Your task to perform on an android device: find snoozed emails in the gmail app Image 0: 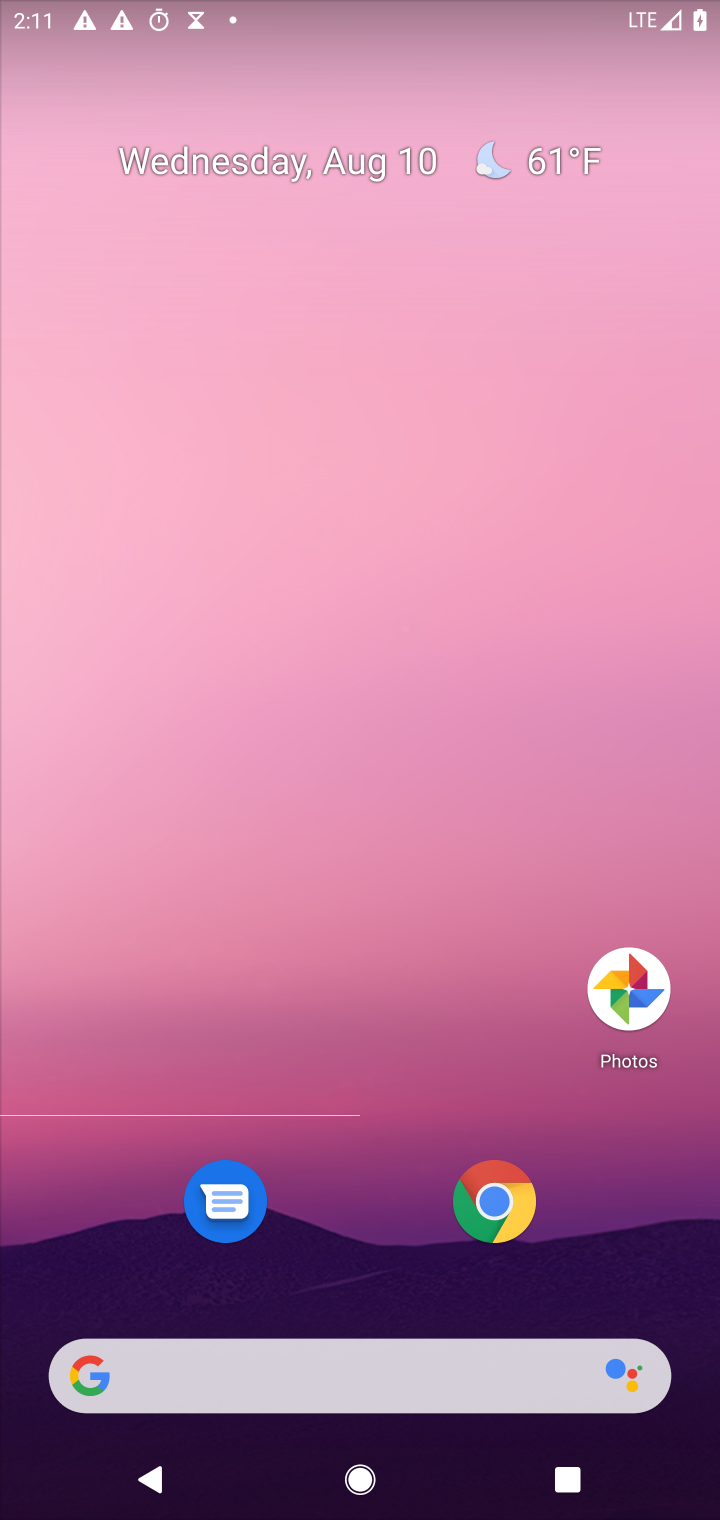
Step 0: drag from (345, 1035) to (382, 24)
Your task to perform on an android device: find snoozed emails in the gmail app Image 1: 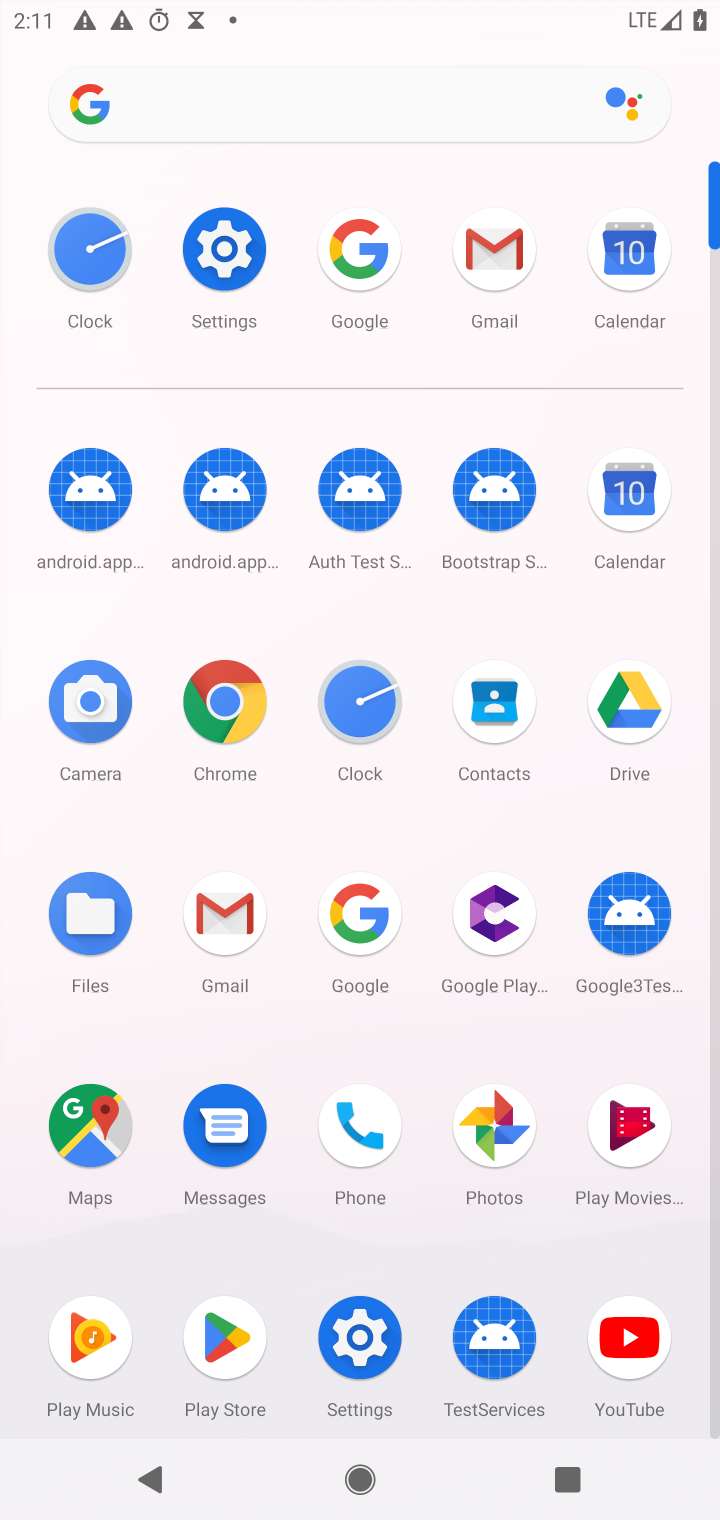
Step 1: click (488, 277)
Your task to perform on an android device: find snoozed emails in the gmail app Image 2: 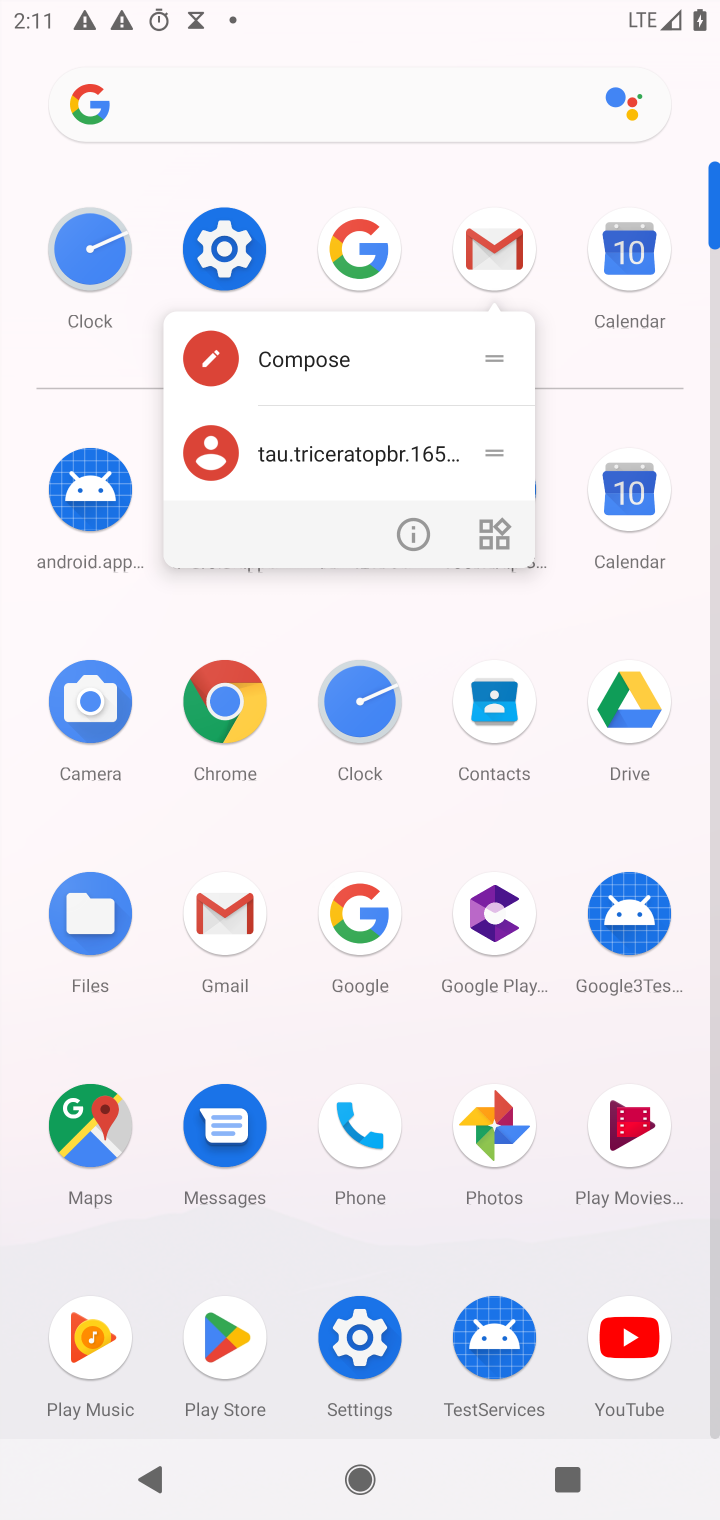
Step 2: click (488, 277)
Your task to perform on an android device: find snoozed emails in the gmail app Image 3: 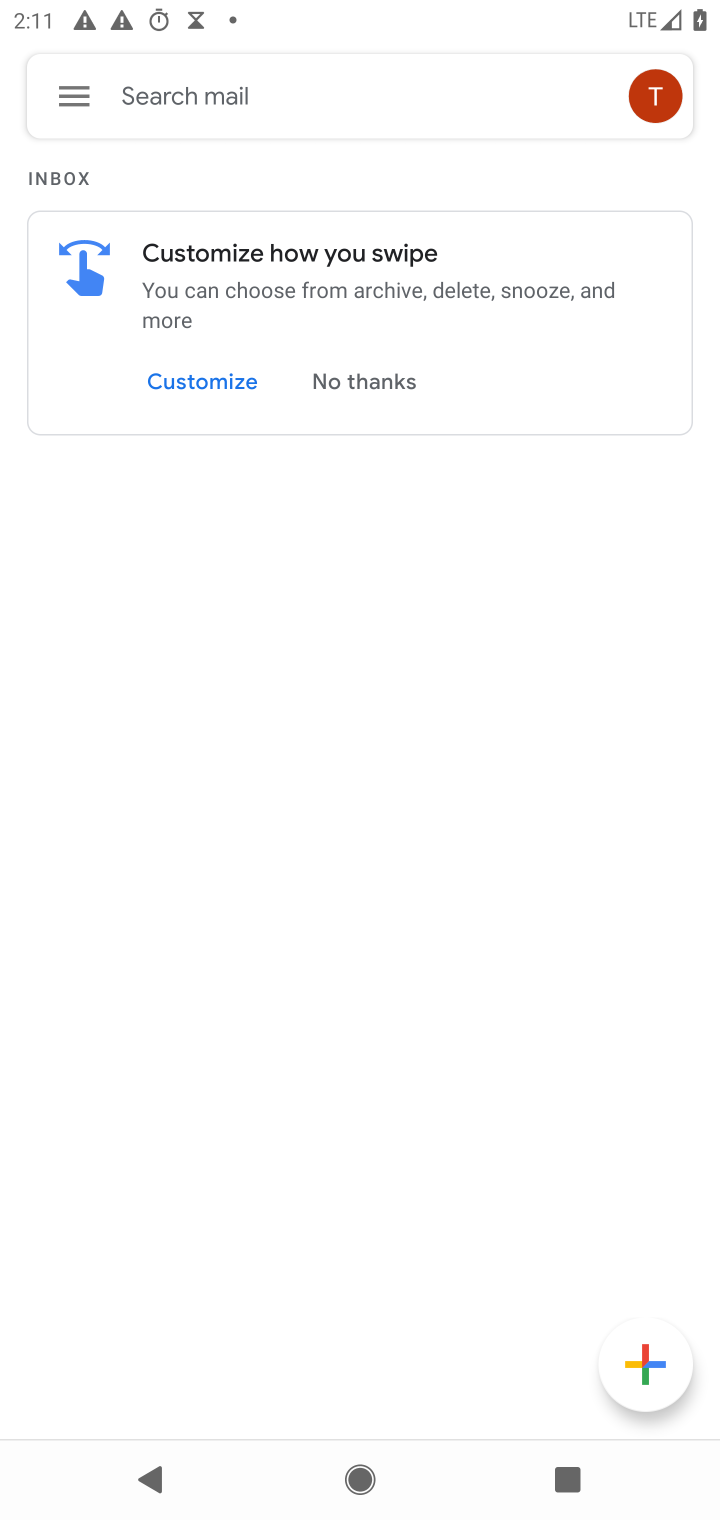
Step 3: click (60, 112)
Your task to perform on an android device: find snoozed emails in the gmail app Image 4: 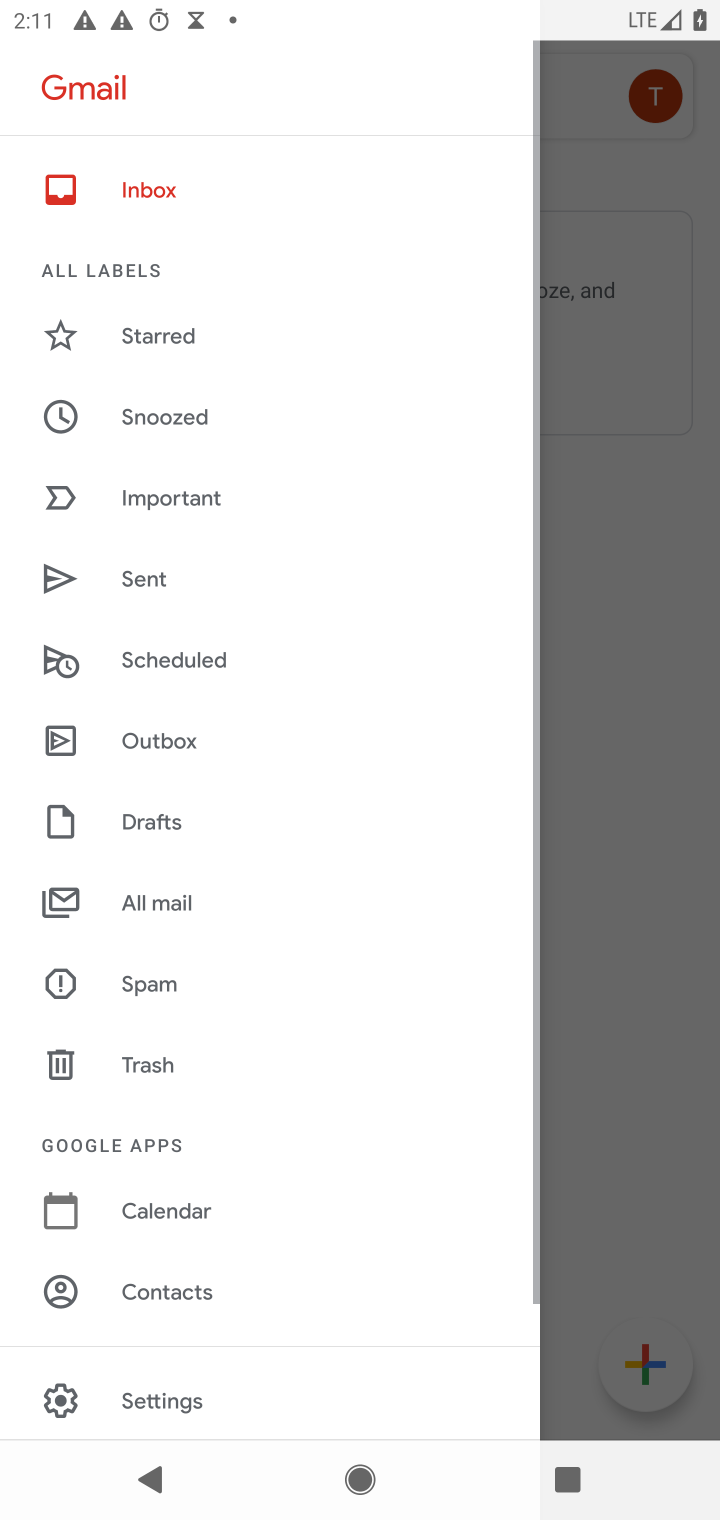
Step 4: drag from (142, 344) to (144, 417)
Your task to perform on an android device: find snoozed emails in the gmail app Image 5: 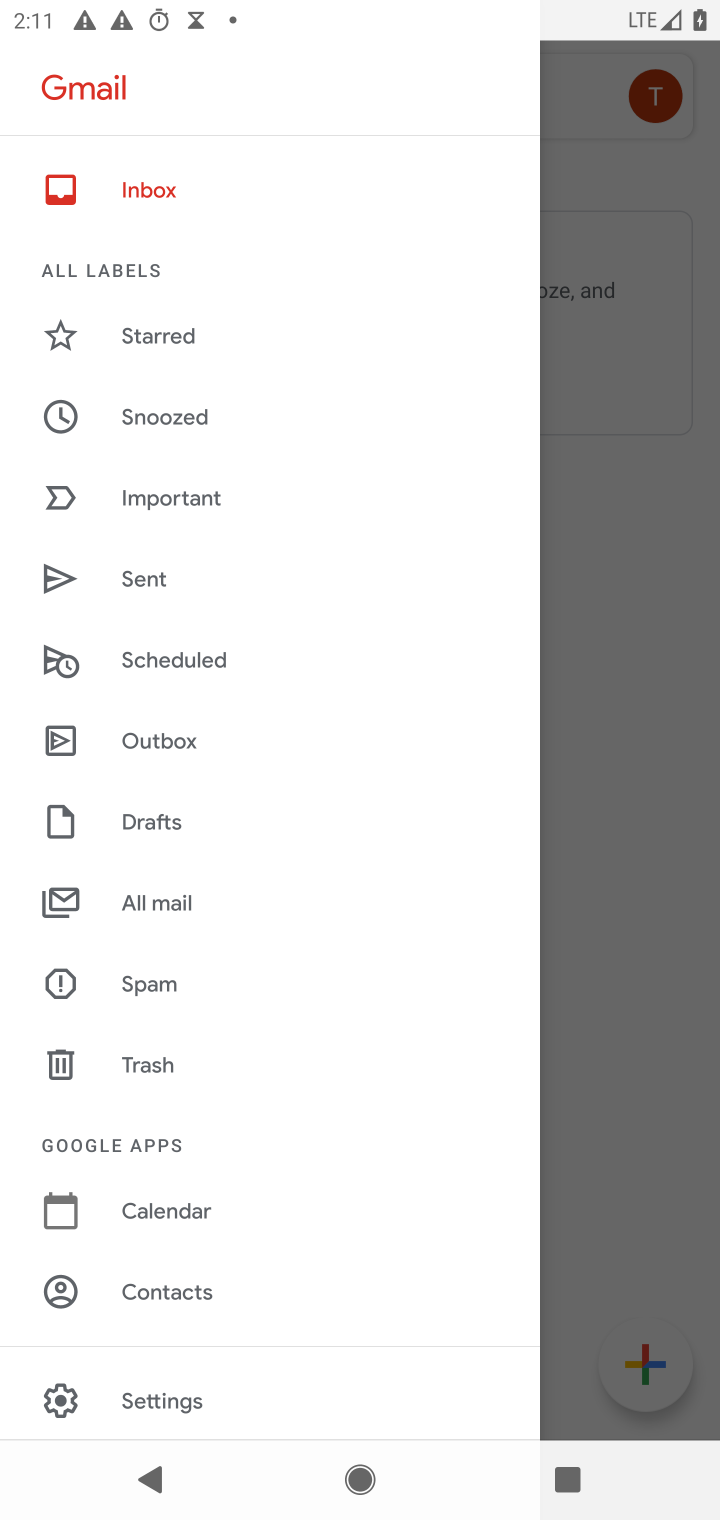
Step 5: click (144, 417)
Your task to perform on an android device: find snoozed emails in the gmail app Image 6: 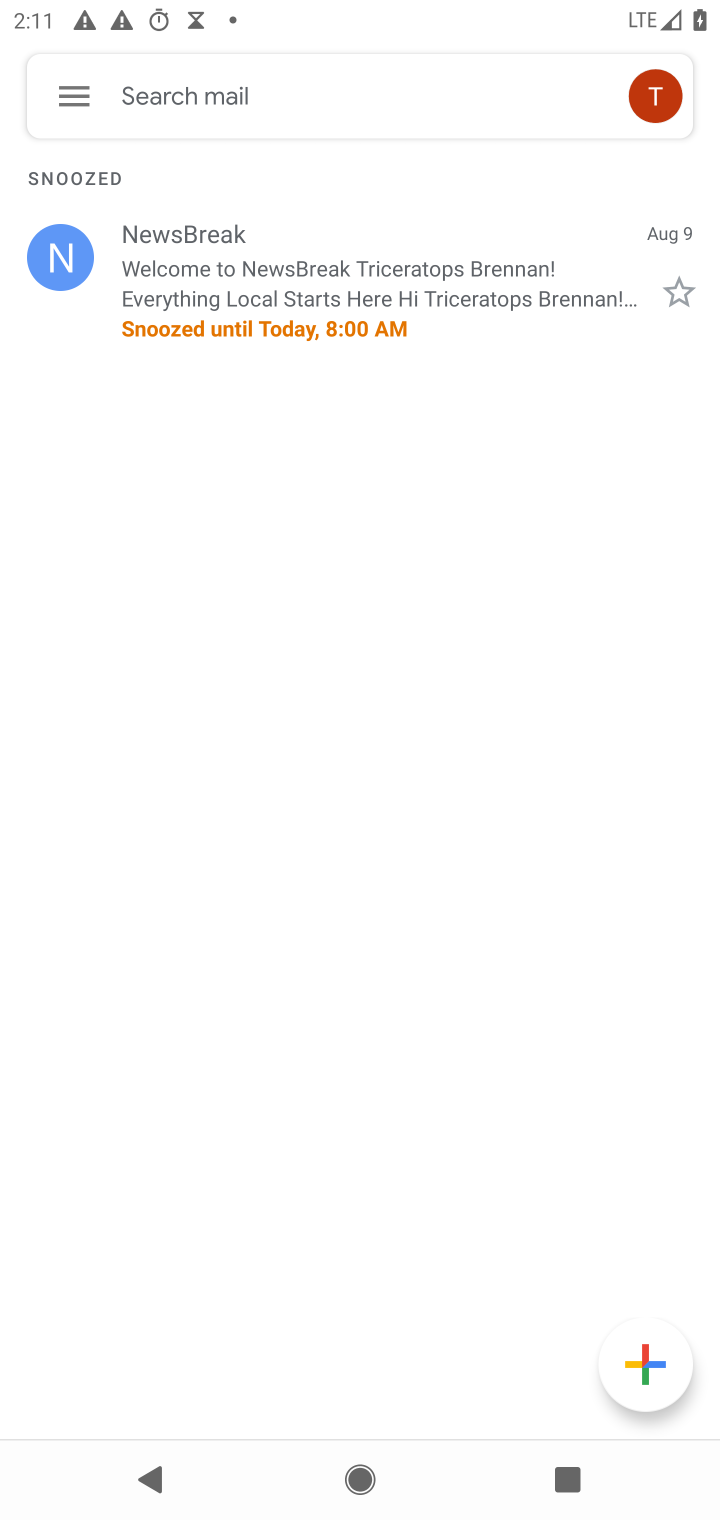
Step 6: task complete